Your task to perform on an android device: check the backup settings in the google photos Image 0: 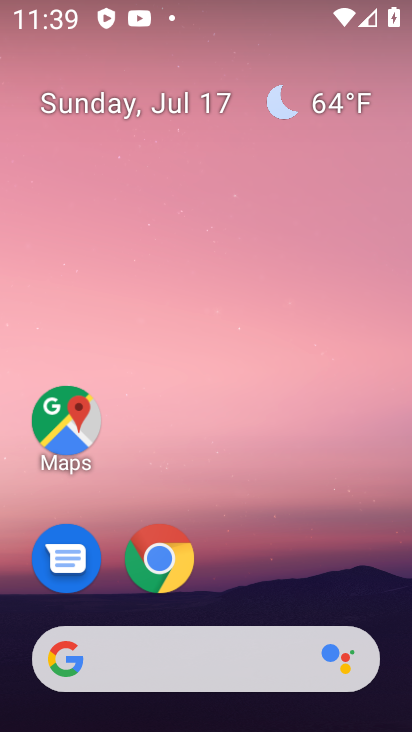
Step 0: drag from (351, 505) to (322, 166)
Your task to perform on an android device: check the backup settings in the google photos Image 1: 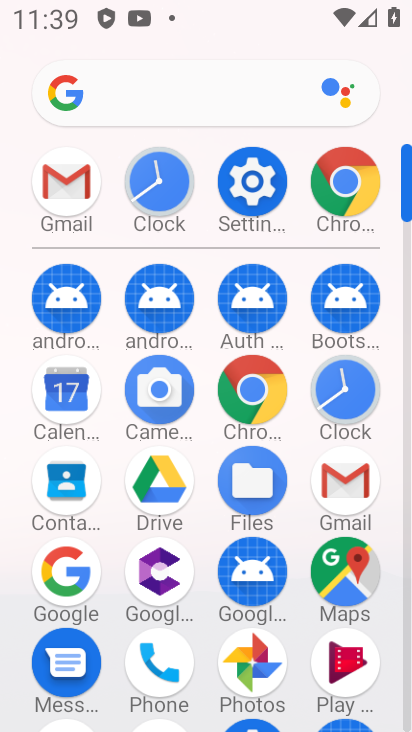
Step 1: drag from (397, 636) to (394, 410)
Your task to perform on an android device: check the backup settings in the google photos Image 2: 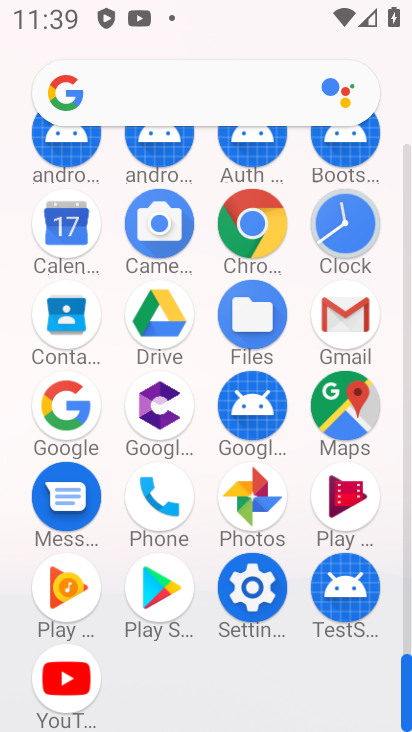
Step 2: click (247, 489)
Your task to perform on an android device: check the backup settings in the google photos Image 3: 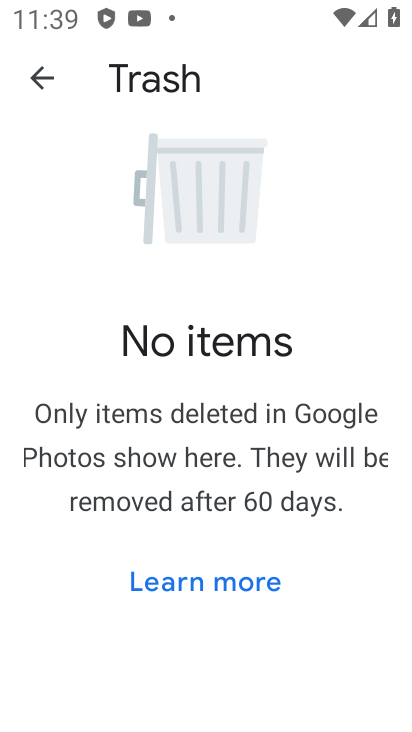
Step 3: press back button
Your task to perform on an android device: check the backup settings in the google photos Image 4: 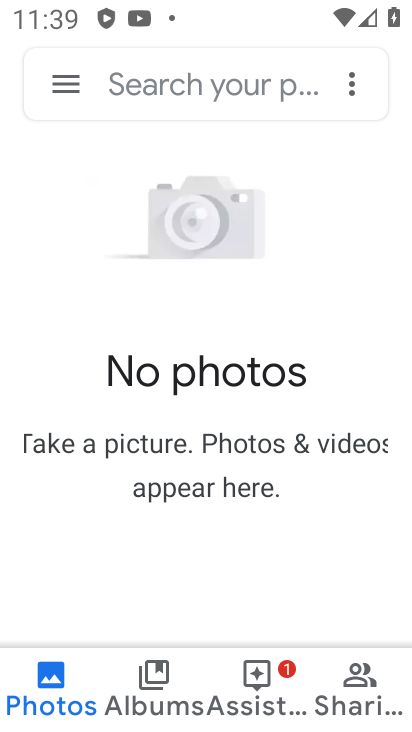
Step 4: click (71, 90)
Your task to perform on an android device: check the backup settings in the google photos Image 5: 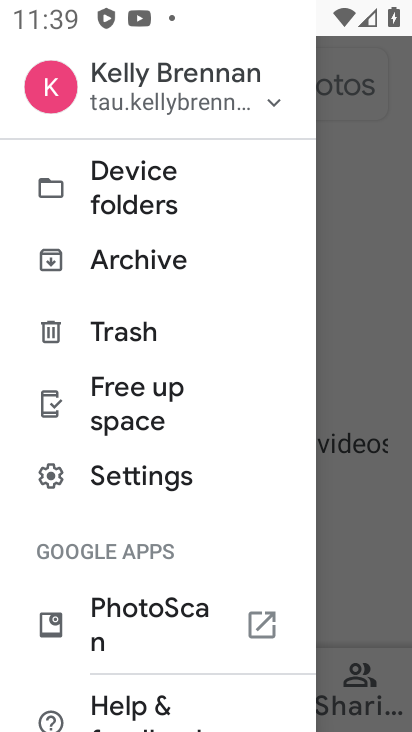
Step 5: click (198, 484)
Your task to perform on an android device: check the backup settings in the google photos Image 6: 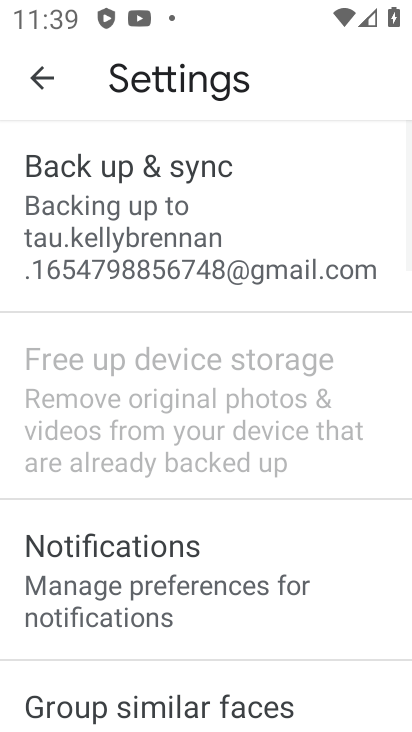
Step 6: drag from (289, 505) to (289, 393)
Your task to perform on an android device: check the backup settings in the google photos Image 7: 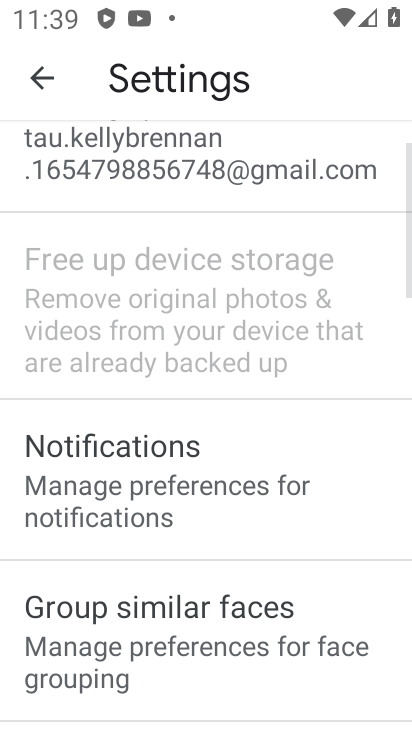
Step 7: drag from (280, 513) to (276, 389)
Your task to perform on an android device: check the backup settings in the google photos Image 8: 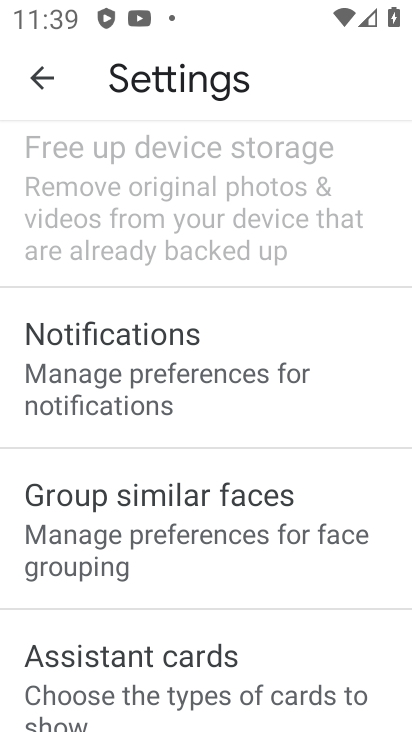
Step 8: drag from (249, 508) to (235, 404)
Your task to perform on an android device: check the backup settings in the google photos Image 9: 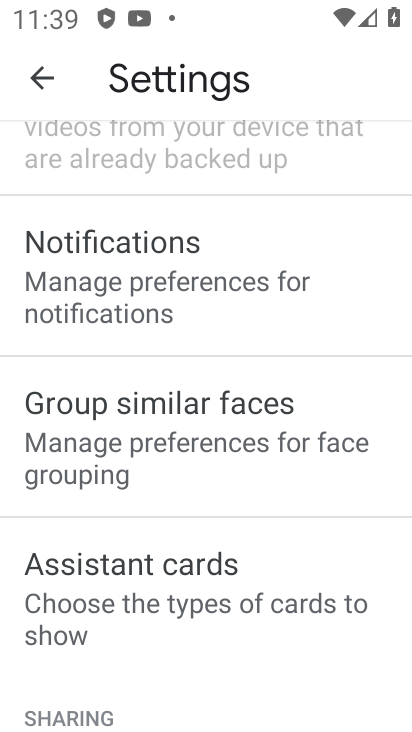
Step 9: drag from (225, 583) to (222, 448)
Your task to perform on an android device: check the backup settings in the google photos Image 10: 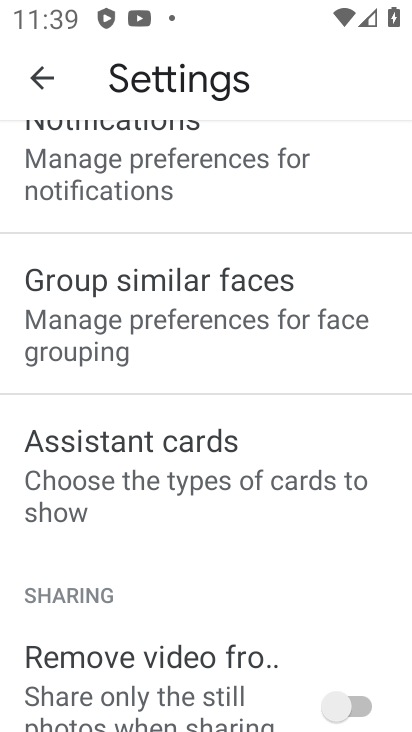
Step 10: drag from (326, 252) to (322, 356)
Your task to perform on an android device: check the backup settings in the google photos Image 11: 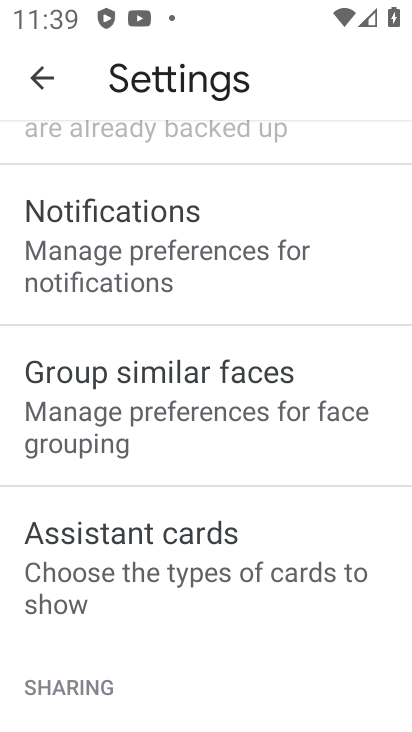
Step 11: drag from (319, 206) to (343, 350)
Your task to perform on an android device: check the backup settings in the google photos Image 12: 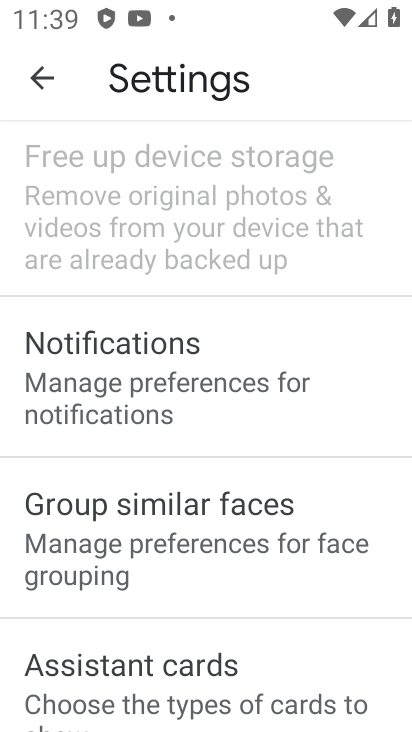
Step 12: drag from (342, 185) to (350, 329)
Your task to perform on an android device: check the backup settings in the google photos Image 13: 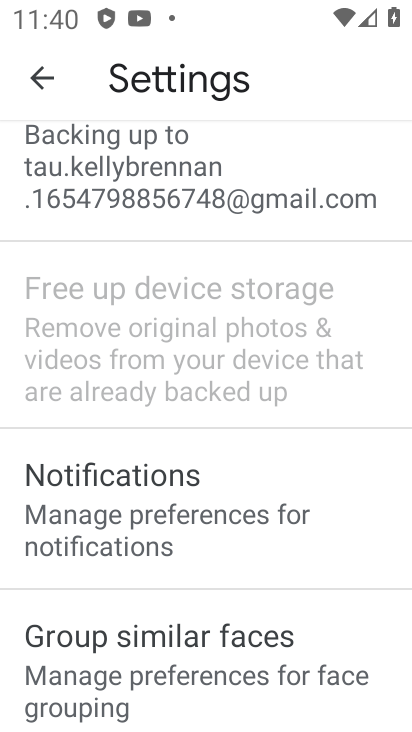
Step 13: drag from (336, 222) to (342, 351)
Your task to perform on an android device: check the backup settings in the google photos Image 14: 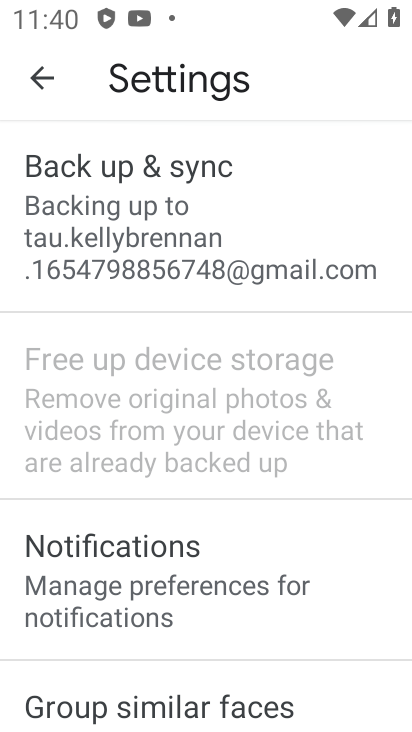
Step 14: click (201, 240)
Your task to perform on an android device: check the backup settings in the google photos Image 15: 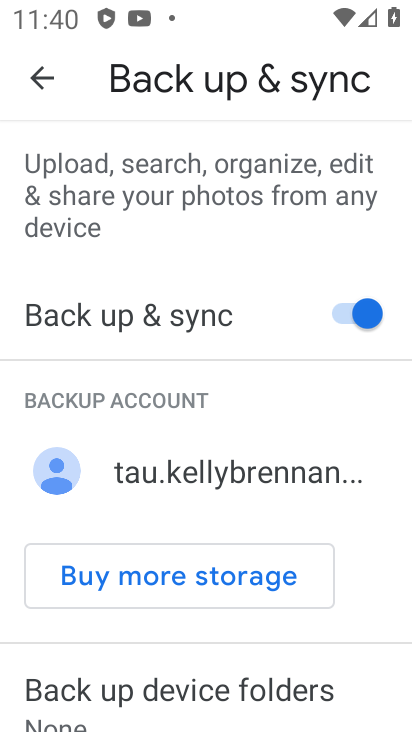
Step 15: task complete